Your task to perform on an android device: turn off data saver in the chrome app Image 0: 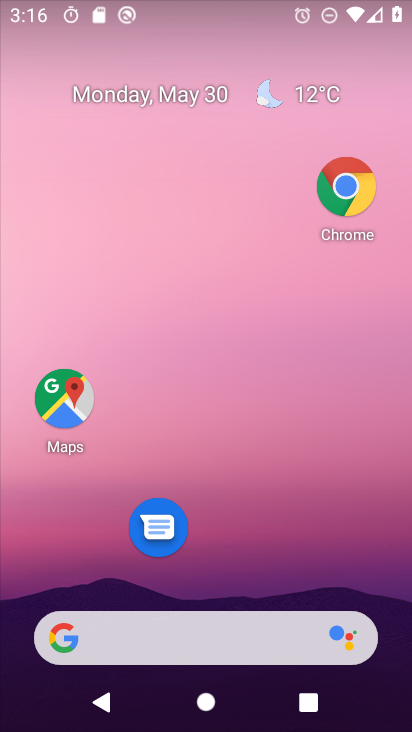
Step 0: drag from (208, 564) to (221, 174)
Your task to perform on an android device: turn off data saver in the chrome app Image 1: 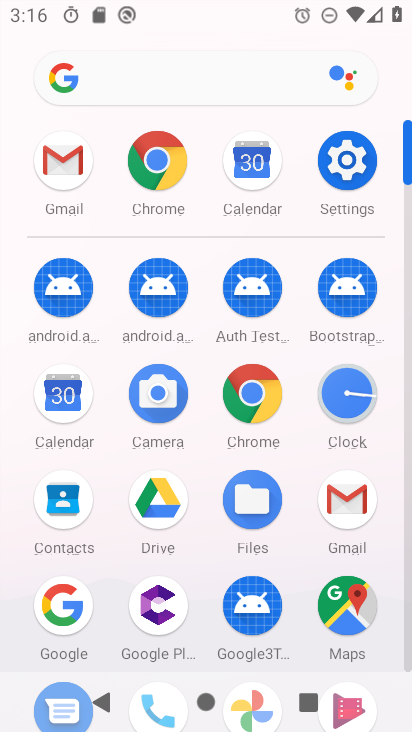
Step 1: click (246, 386)
Your task to perform on an android device: turn off data saver in the chrome app Image 2: 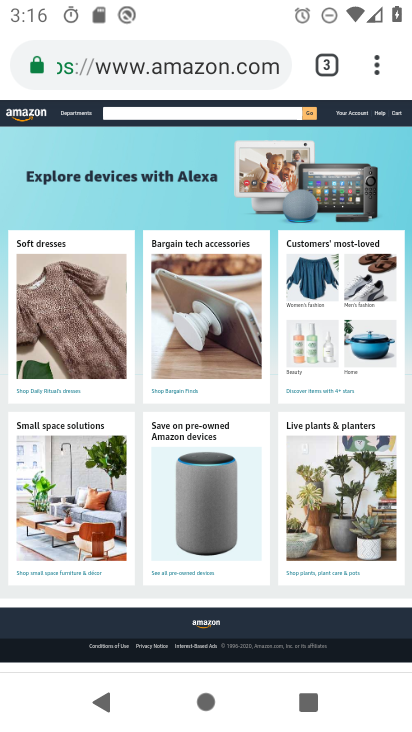
Step 2: drag from (377, 56) to (189, 578)
Your task to perform on an android device: turn off data saver in the chrome app Image 3: 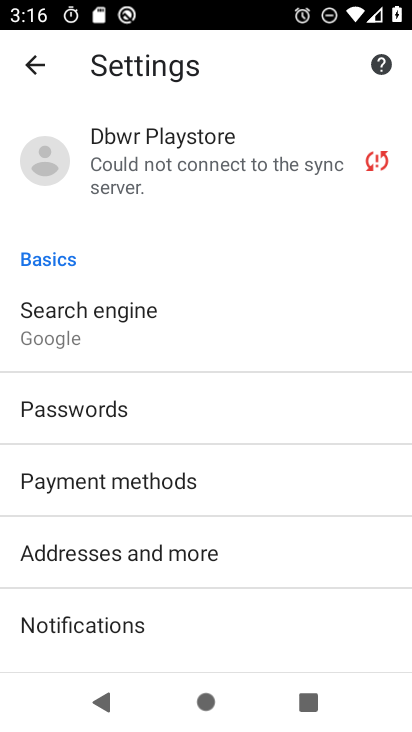
Step 3: drag from (178, 554) to (202, 290)
Your task to perform on an android device: turn off data saver in the chrome app Image 4: 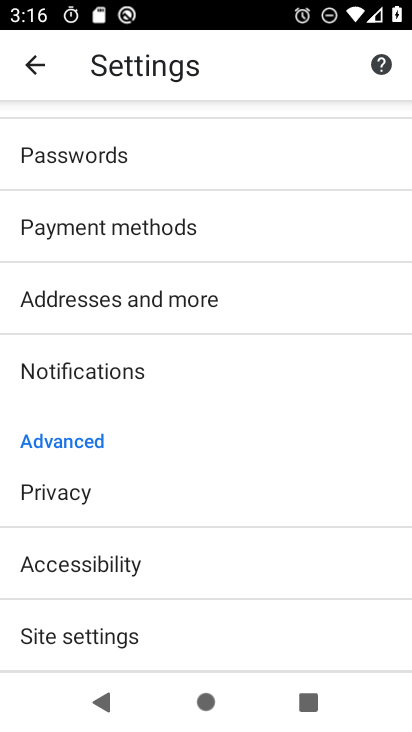
Step 4: drag from (131, 602) to (167, 460)
Your task to perform on an android device: turn off data saver in the chrome app Image 5: 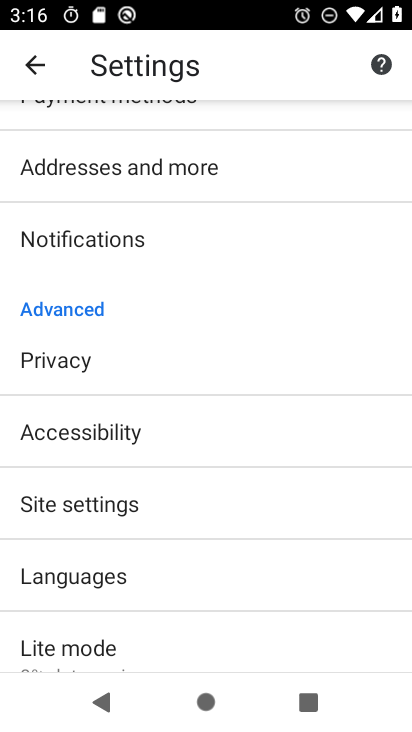
Step 5: drag from (126, 608) to (271, 199)
Your task to perform on an android device: turn off data saver in the chrome app Image 6: 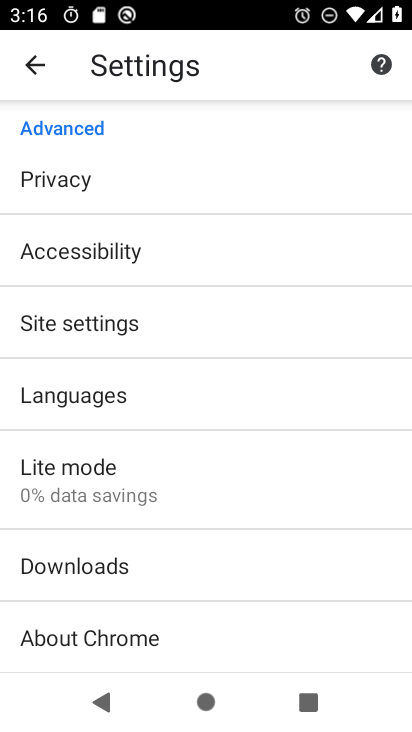
Step 6: click (111, 476)
Your task to perform on an android device: turn off data saver in the chrome app Image 7: 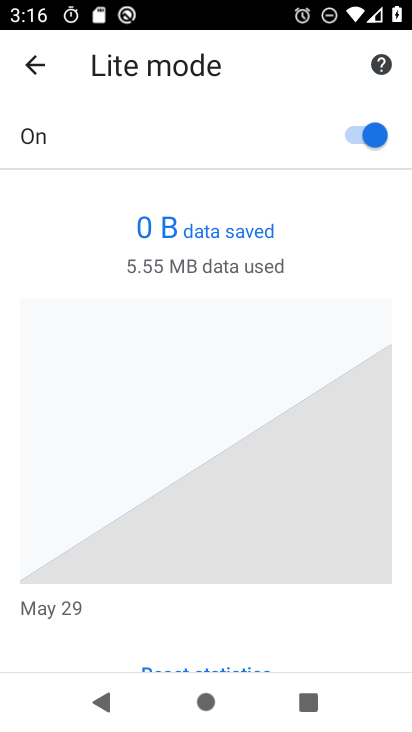
Step 7: click (357, 141)
Your task to perform on an android device: turn off data saver in the chrome app Image 8: 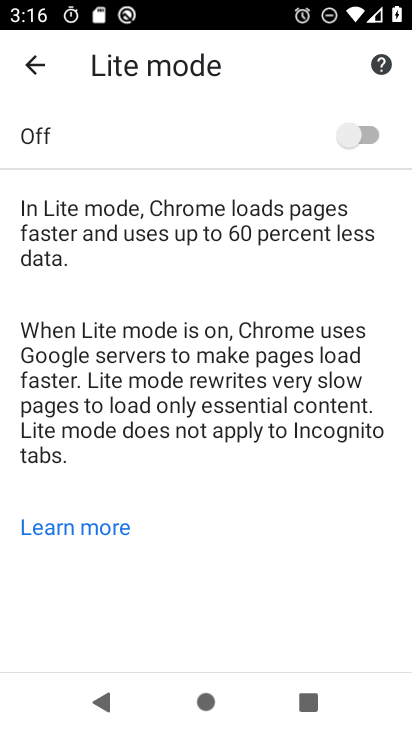
Step 8: task complete